Your task to perform on an android device: Open the map Image 0: 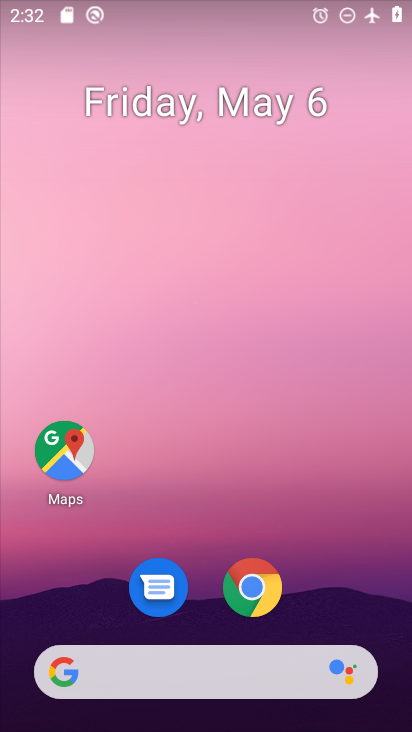
Step 0: click (58, 447)
Your task to perform on an android device: Open the map Image 1: 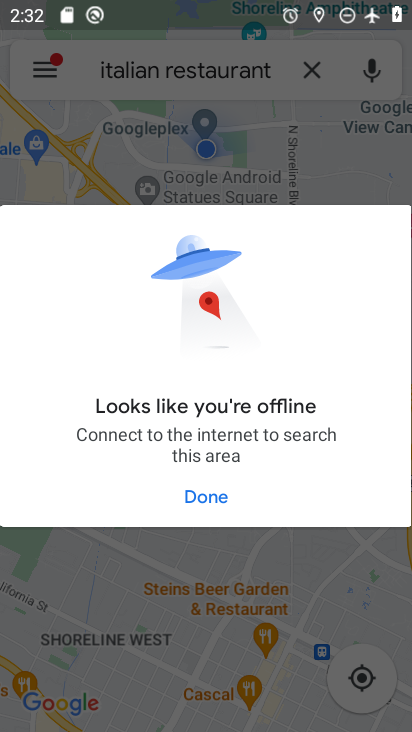
Step 1: task complete